Your task to perform on an android device: stop showing notifications on the lock screen Image 0: 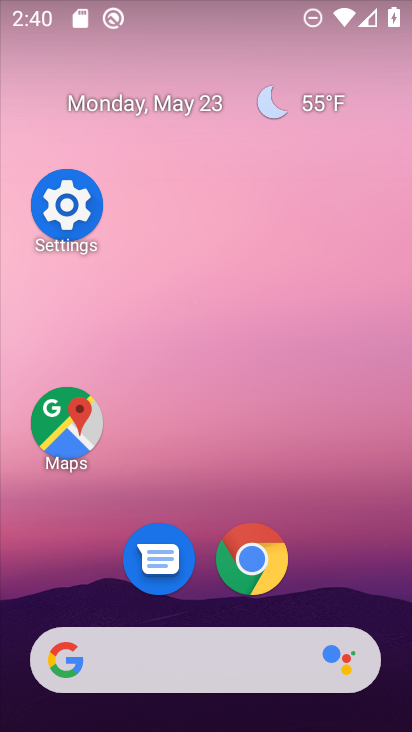
Step 0: click (73, 212)
Your task to perform on an android device: stop showing notifications on the lock screen Image 1: 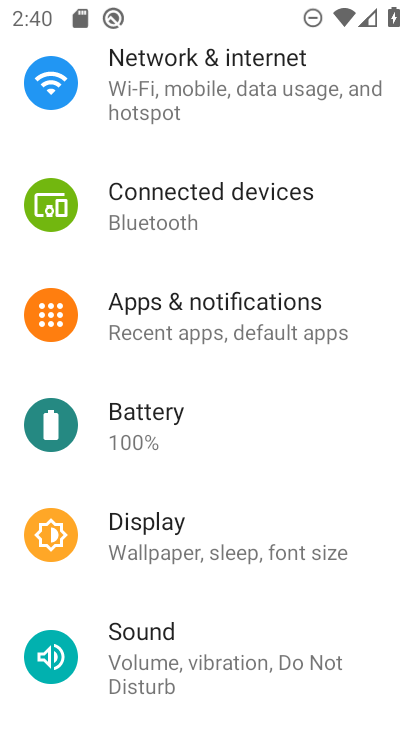
Step 1: click (229, 294)
Your task to perform on an android device: stop showing notifications on the lock screen Image 2: 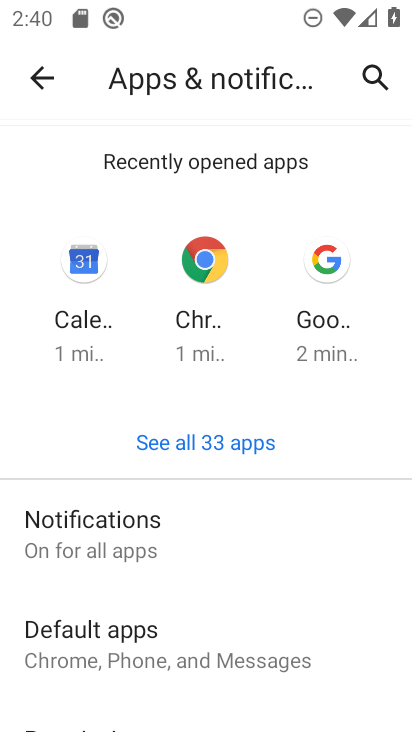
Step 2: click (139, 516)
Your task to perform on an android device: stop showing notifications on the lock screen Image 3: 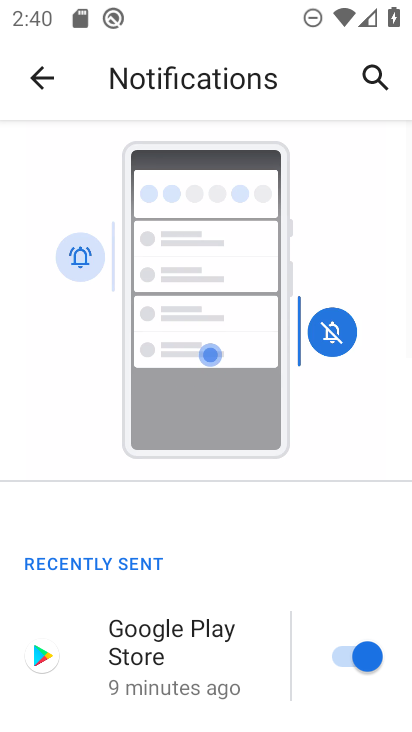
Step 3: drag from (162, 622) to (162, 172)
Your task to perform on an android device: stop showing notifications on the lock screen Image 4: 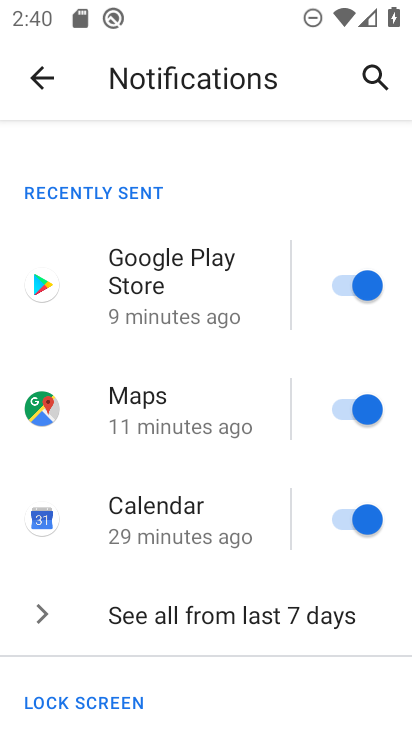
Step 4: drag from (119, 541) to (134, 166)
Your task to perform on an android device: stop showing notifications on the lock screen Image 5: 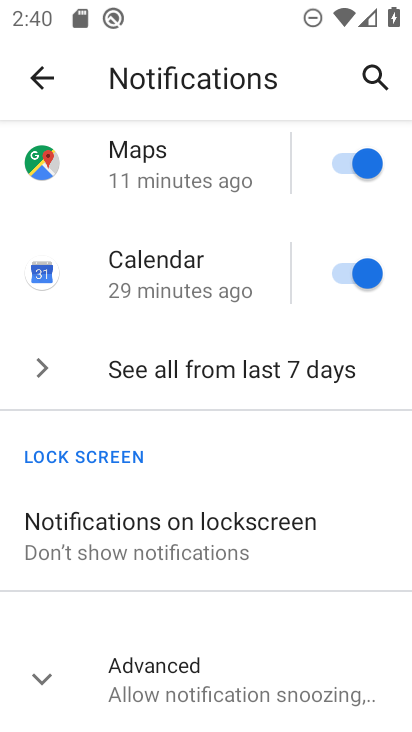
Step 5: click (186, 550)
Your task to perform on an android device: stop showing notifications on the lock screen Image 6: 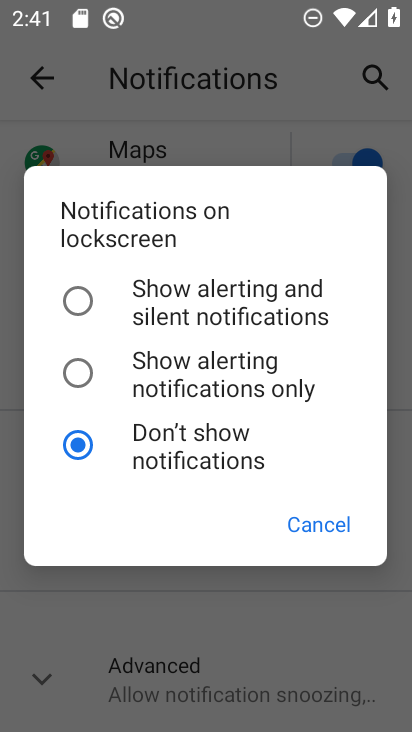
Step 6: task complete